Your task to perform on an android device: Open calendar and show me the first week of next month Image 0: 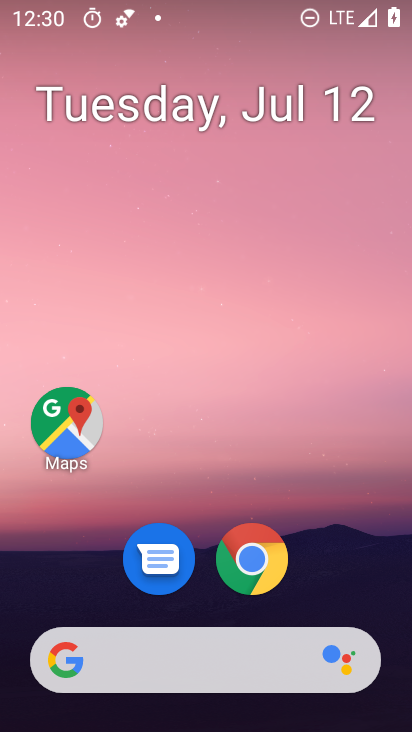
Step 0: drag from (209, 612) to (286, 57)
Your task to perform on an android device: Open calendar and show me the first week of next month Image 1: 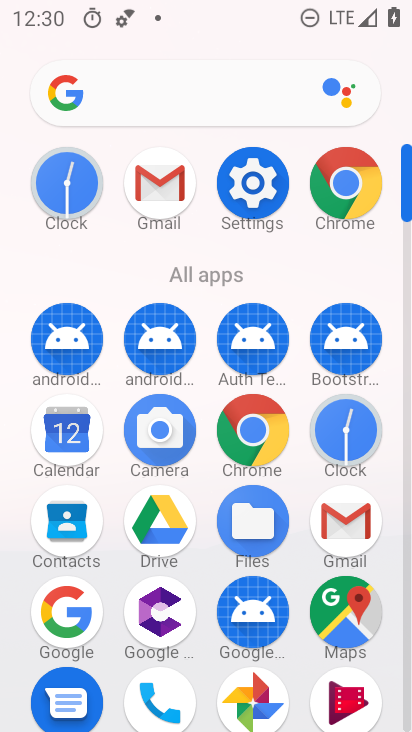
Step 1: click (73, 431)
Your task to perform on an android device: Open calendar and show me the first week of next month Image 2: 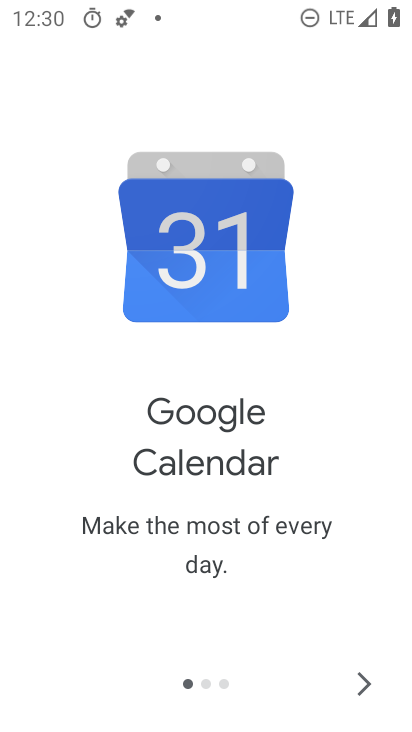
Step 2: click (363, 690)
Your task to perform on an android device: Open calendar and show me the first week of next month Image 3: 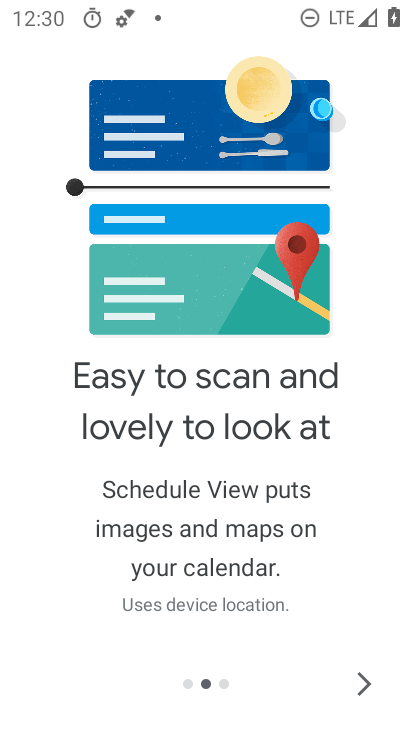
Step 3: click (358, 691)
Your task to perform on an android device: Open calendar and show me the first week of next month Image 4: 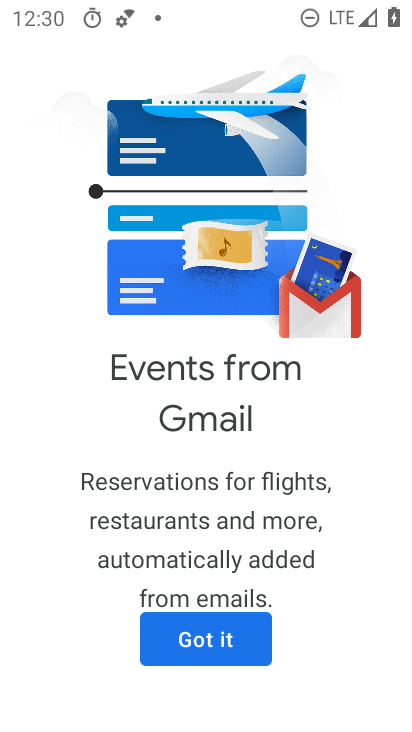
Step 4: click (202, 648)
Your task to perform on an android device: Open calendar and show me the first week of next month Image 5: 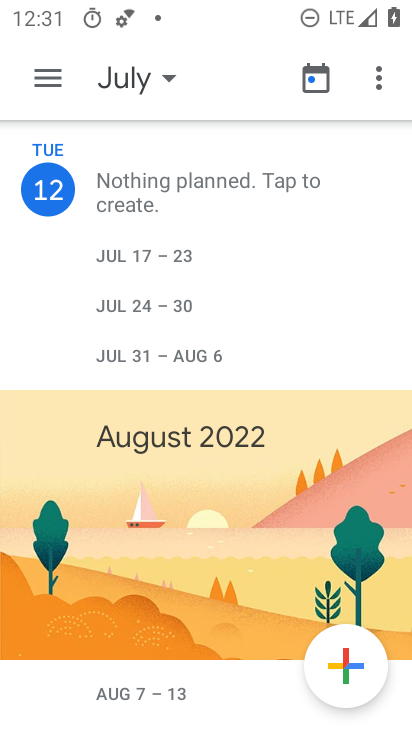
Step 5: click (157, 72)
Your task to perform on an android device: Open calendar and show me the first week of next month Image 6: 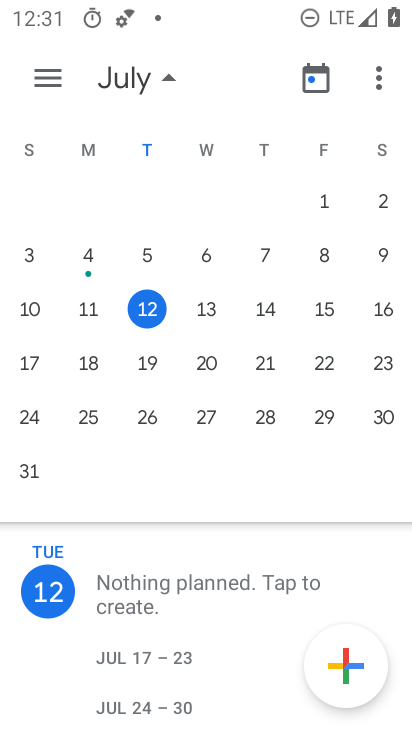
Step 6: drag from (345, 292) to (62, 290)
Your task to perform on an android device: Open calendar and show me the first week of next month Image 7: 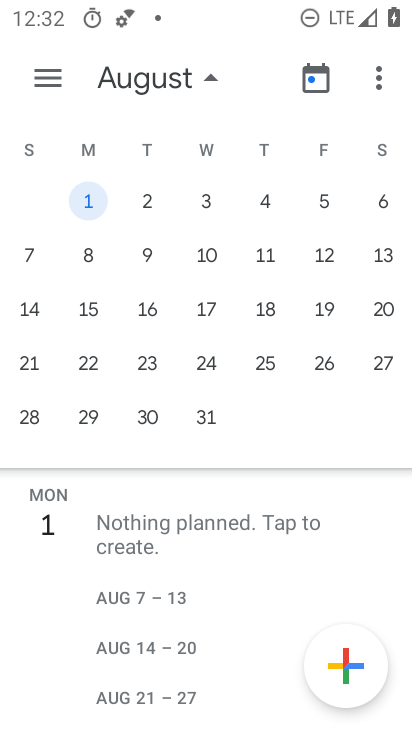
Step 7: click (92, 201)
Your task to perform on an android device: Open calendar and show me the first week of next month Image 8: 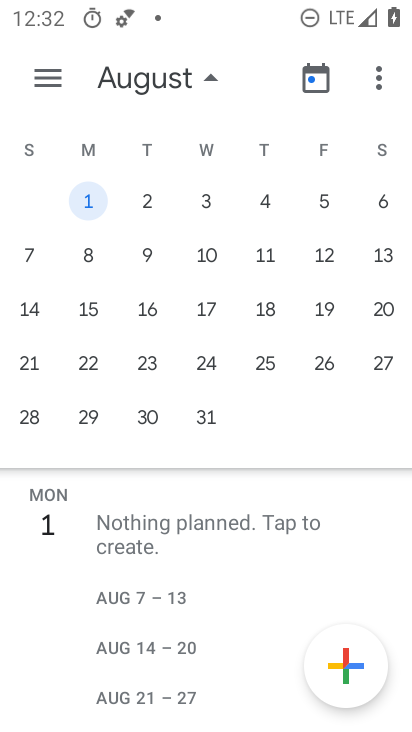
Step 8: task complete